Your task to perform on an android device: stop showing notifications on the lock screen Image 0: 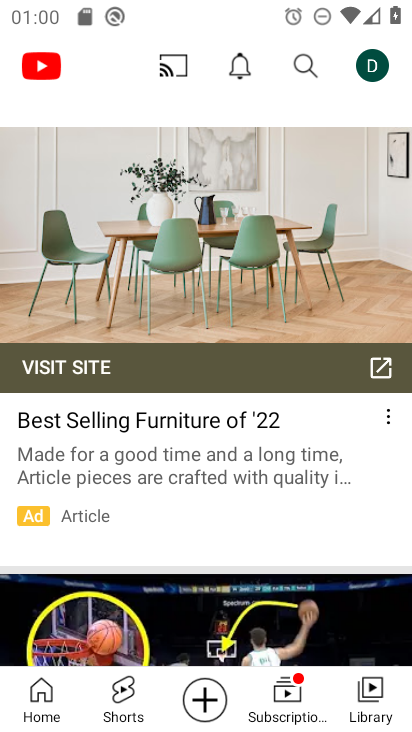
Step 0: press home button
Your task to perform on an android device: stop showing notifications on the lock screen Image 1: 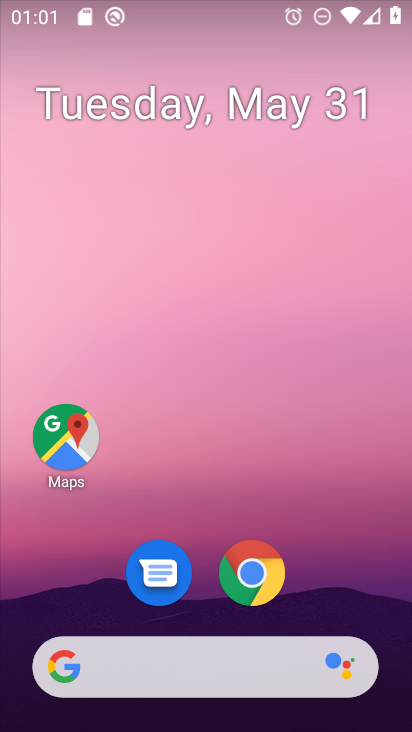
Step 1: drag from (244, 722) to (262, 4)
Your task to perform on an android device: stop showing notifications on the lock screen Image 2: 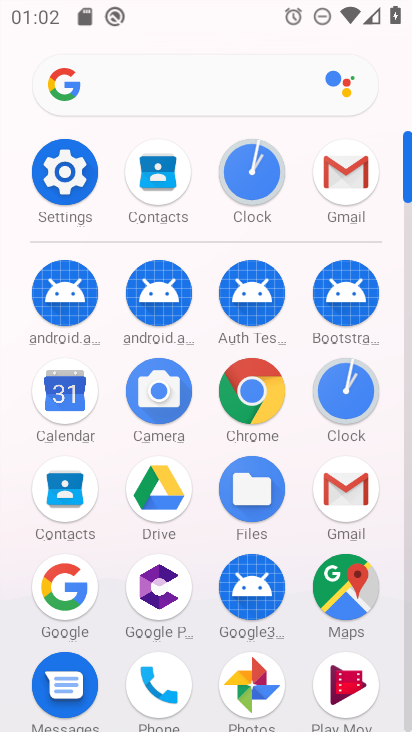
Step 2: click (59, 179)
Your task to perform on an android device: stop showing notifications on the lock screen Image 3: 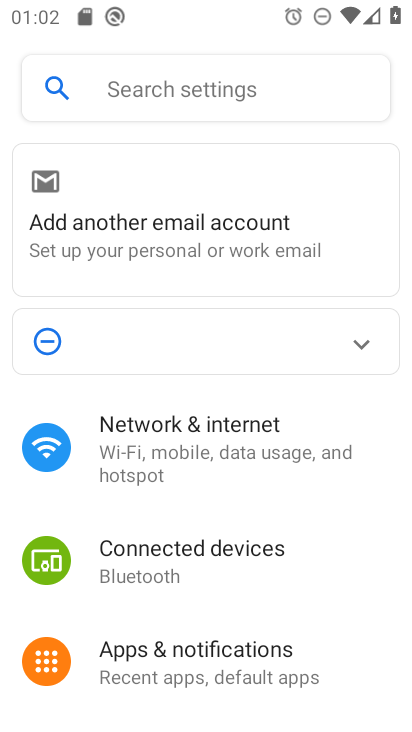
Step 3: click (224, 652)
Your task to perform on an android device: stop showing notifications on the lock screen Image 4: 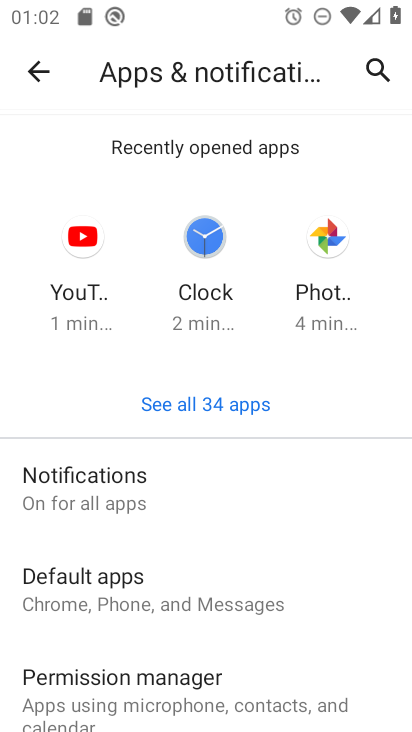
Step 4: drag from (282, 678) to (339, 43)
Your task to perform on an android device: stop showing notifications on the lock screen Image 5: 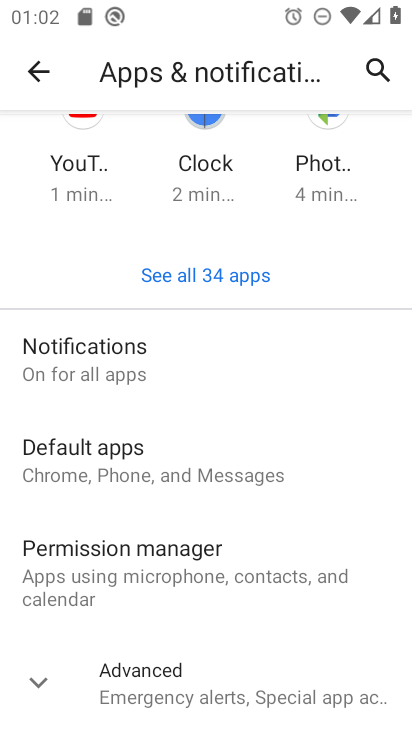
Step 5: click (98, 354)
Your task to perform on an android device: stop showing notifications on the lock screen Image 6: 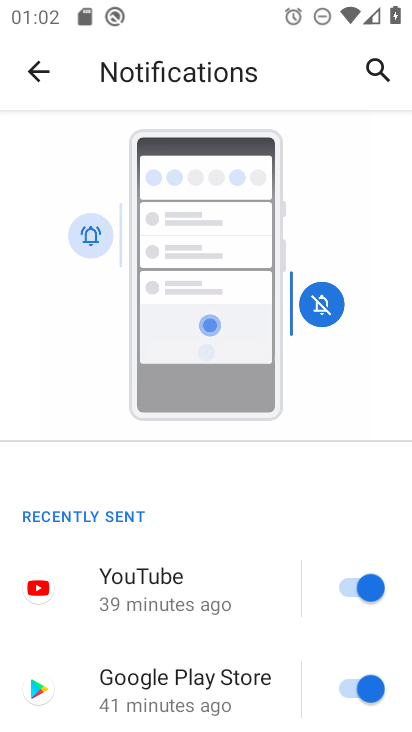
Step 6: drag from (218, 648) to (219, 135)
Your task to perform on an android device: stop showing notifications on the lock screen Image 7: 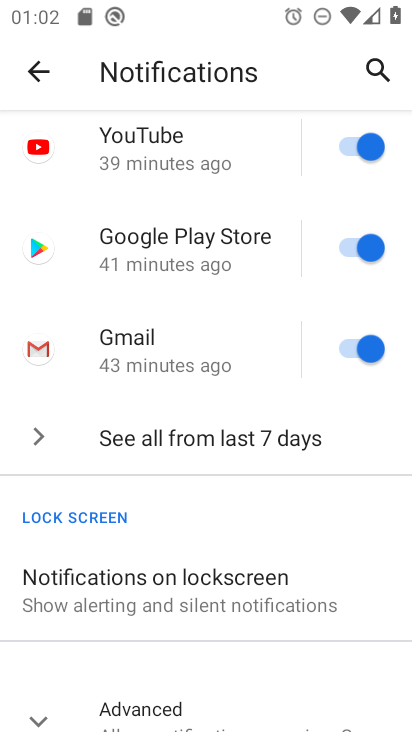
Step 7: drag from (261, 694) to (350, 160)
Your task to perform on an android device: stop showing notifications on the lock screen Image 8: 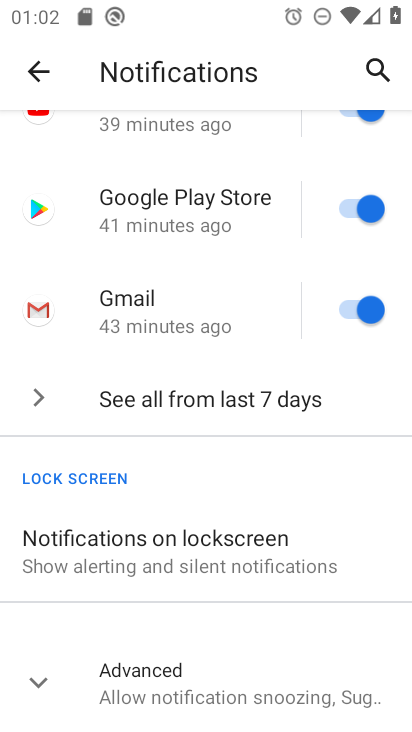
Step 8: click (300, 555)
Your task to perform on an android device: stop showing notifications on the lock screen Image 9: 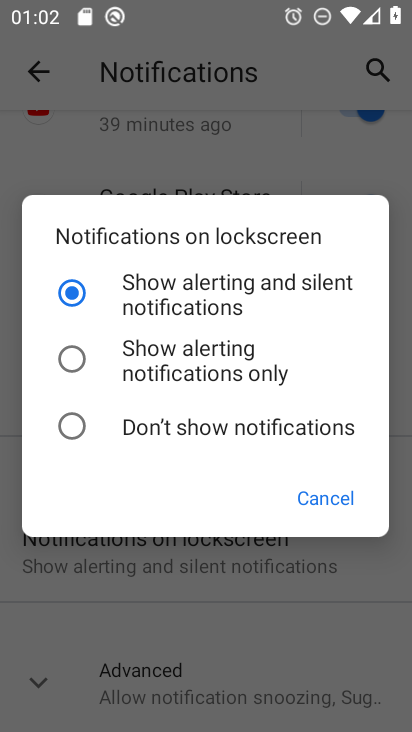
Step 9: click (267, 422)
Your task to perform on an android device: stop showing notifications on the lock screen Image 10: 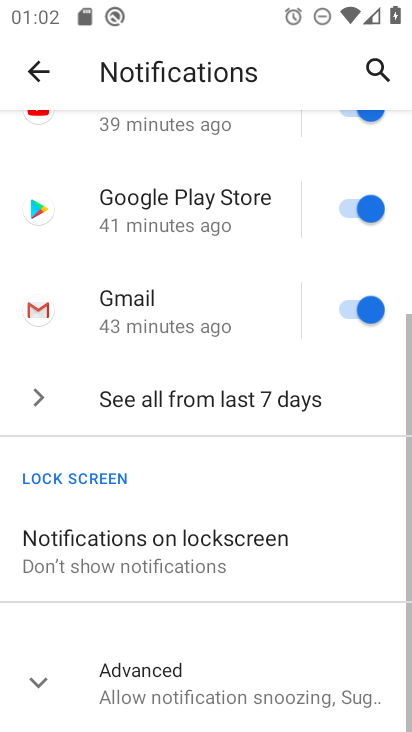
Step 10: task complete